Your task to perform on an android device: Go to battery settings Image 0: 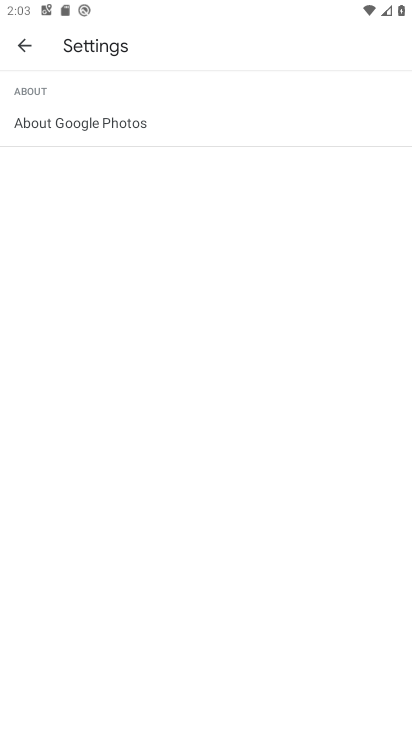
Step 0: press home button
Your task to perform on an android device: Go to battery settings Image 1: 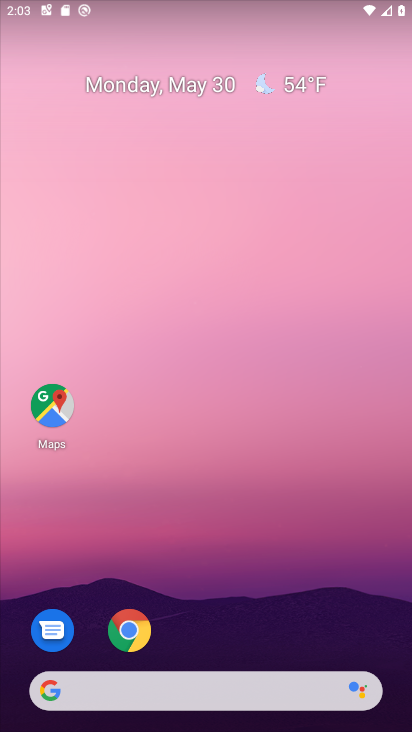
Step 1: drag from (206, 682) to (329, 117)
Your task to perform on an android device: Go to battery settings Image 2: 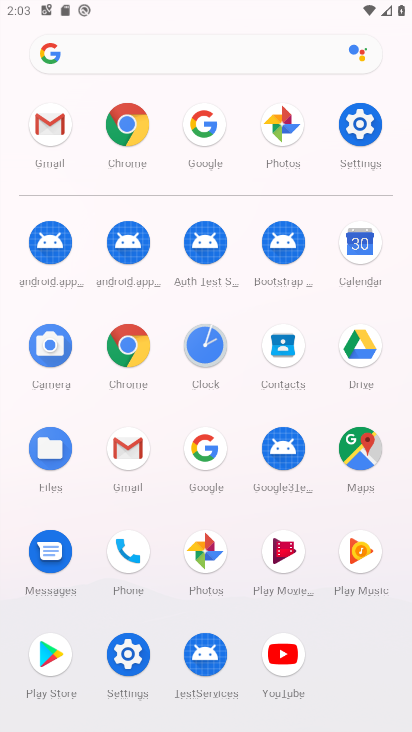
Step 2: click (355, 135)
Your task to perform on an android device: Go to battery settings Image 3: 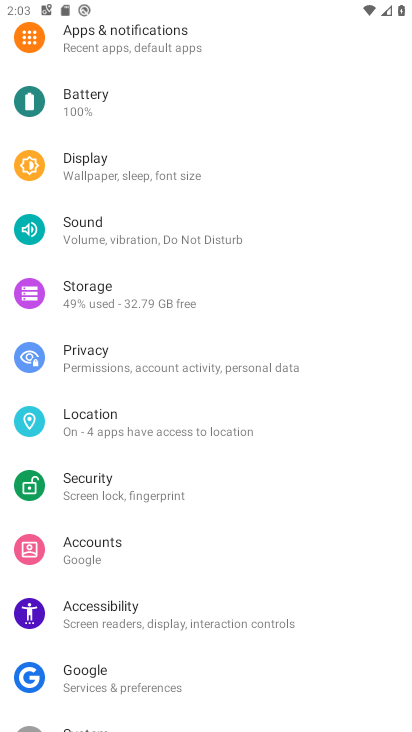
Step 3: click (79, 108)
Your task to perform on an android device: Go to battery settings Image 4: 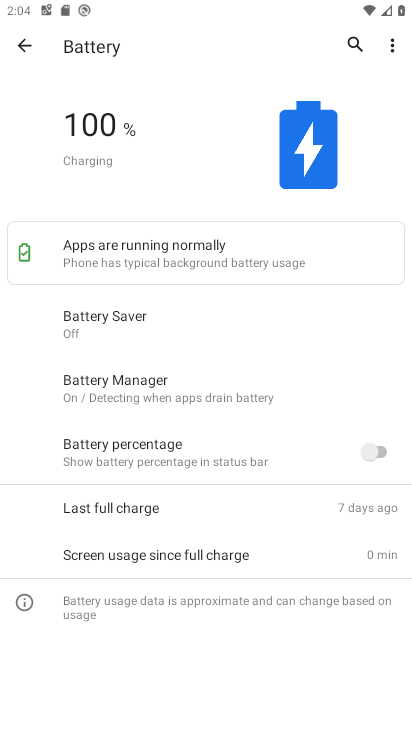
Step 4: task complete